Your task to perform on an android device: open app "Flipkart Online Shopping App" (install if not already installed), go to login, and select forgot password Image 0: 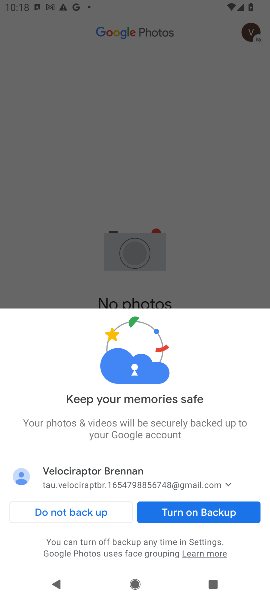
Step 0: press home button
Your task to perform on an android device: open app "Flipkart Online Shopping App" (install if not already installed), go to login, and select forgot password Image 1: 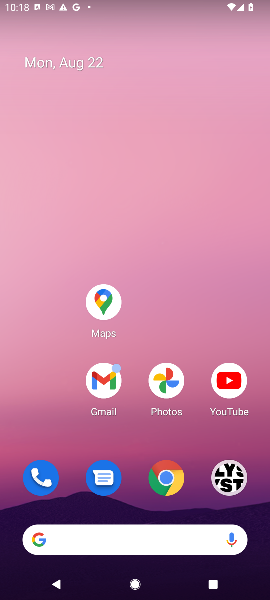
Step 1: drag from (125, 513) to (168, 62)
Your task to perform on an android device: open app "Flipkart Online Shopping App" (install if not already installed), go to login, and select forgot password Image 2: 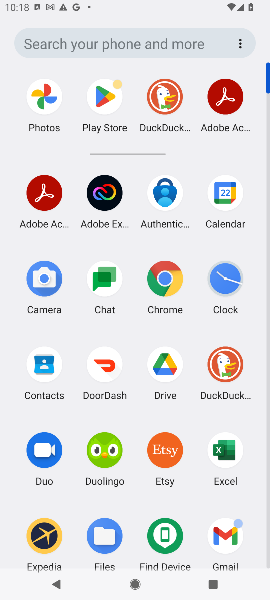
Step 2: click (105, 91)
Your task to perform on an android device: open app "Flipkart Online Shopping App" (install if not already installed), go to login, and select forgot password Image 3: 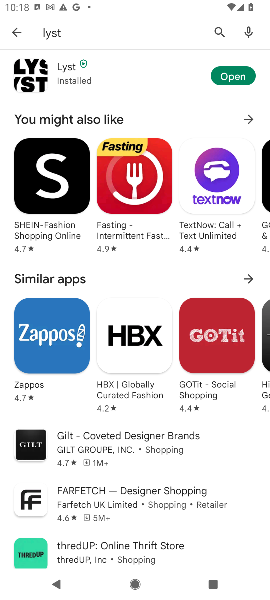
Step 3: click (224, 44)
Your task to perform on an android device: open app "Flipkart Online Shopping App" (install if not already installed), go to login, and select forgot password Image 4: 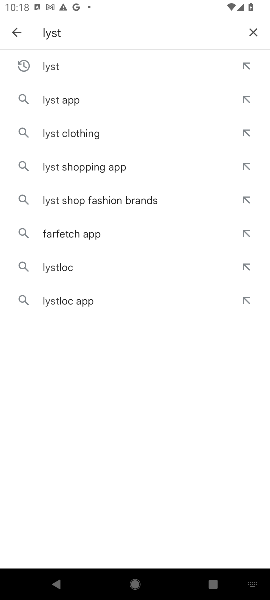
Step 4: click (253, 34)
Your task to perform on an android device: open app "Flipkart Online Shopping App" (install if not already installed), go to login, and select forgot password Image 5: 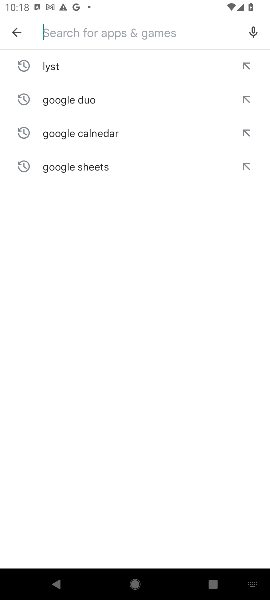
Step 5: type "pubg mobile"
Your task to perform on an android device: open app "Flipkart Online Shopping App" (install if not already installed), go to login, and select forgot password Image 6: 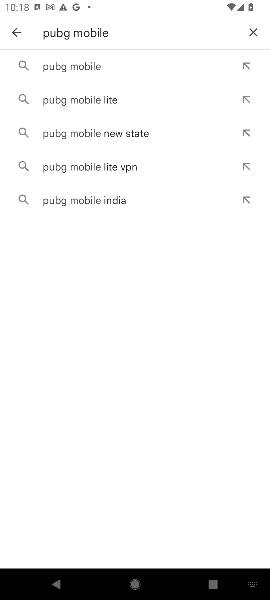
Step 6: click (57, 66)
Your task to perform on an android device: open app "Flipkart Online Shopping App" (install if not already installed), go to login, and select forgot password Image 7: 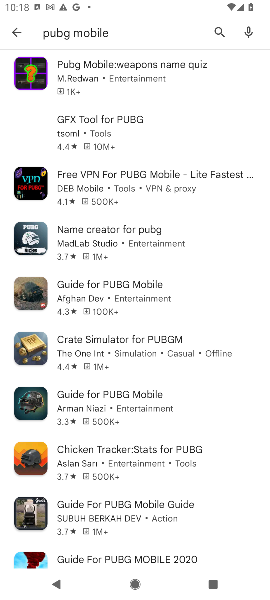
Step 7: task complete